Your task to perform on an android device: turn off javascript in the chrome app Image 0: 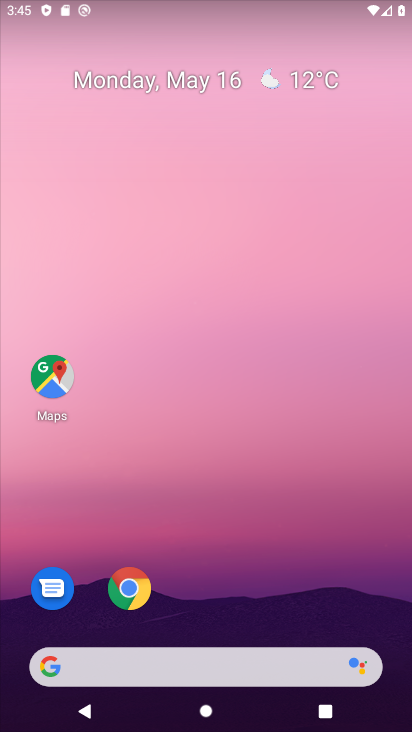
Step 0: click (124, 600)
Your task to perform on an android device: turn off javascript in the chrome app Image 1: 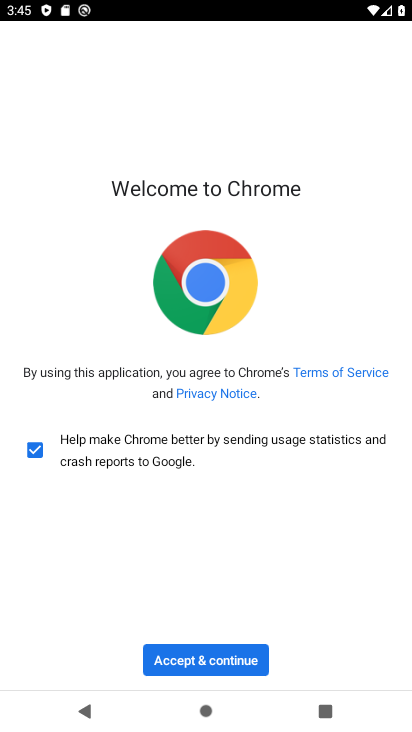
Step 1: click (190, 660)
Your task to perform on an android device: turn off javascript in the chrome app Image 2: 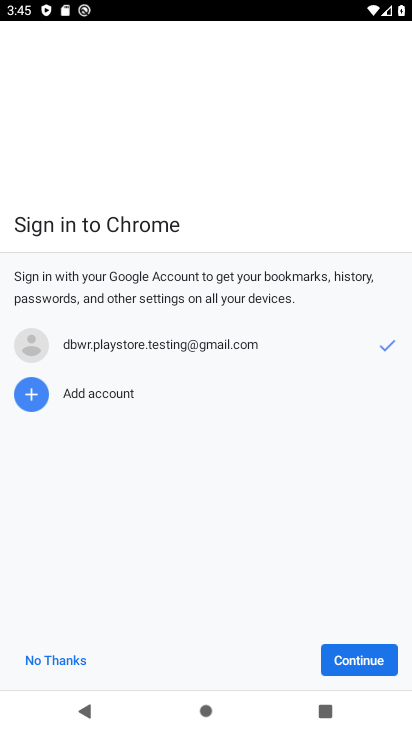
Step 2: click (368, 659)
Your task to perform on an android device: turn off javascript in the chrome app Image 3: 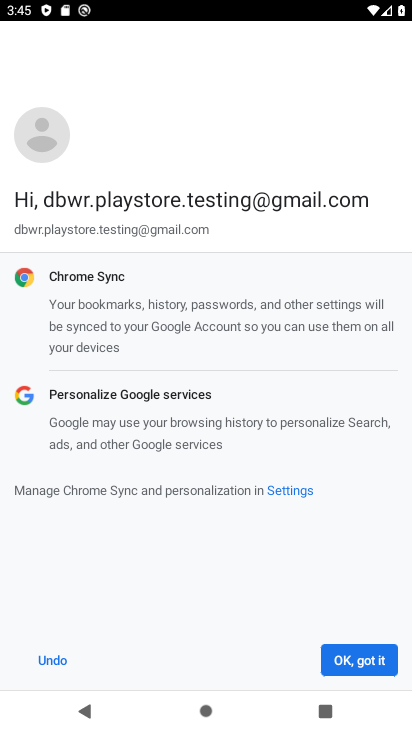
Step 3: click (368, 659)
Your task to perform on an android device: turn off javascript in the chrome app Image 4: 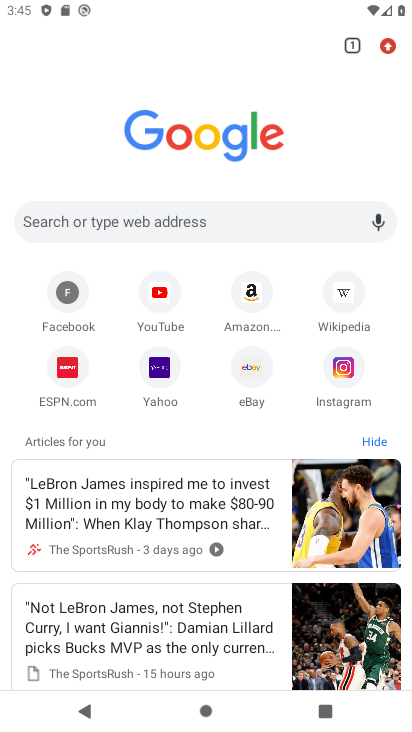
Step 4: click (386, 41)
Your task to perform on an android device: turn off javascript in the chrome app Image 5: 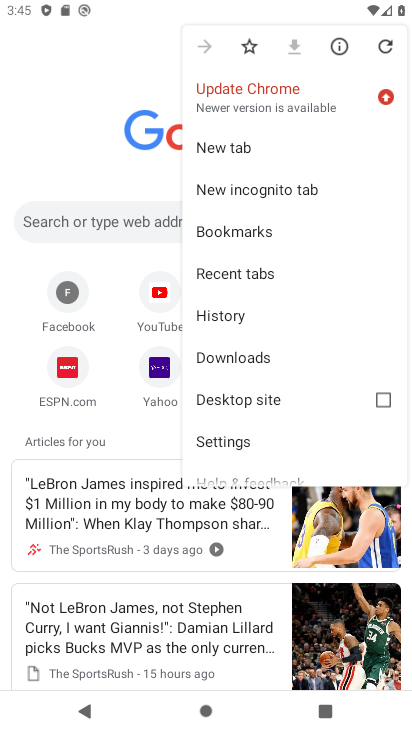
Step 5: drag from (243, 416) to (176, 20)
Your task to perform on an android device: turn off javascript in the chrome app Image 6: 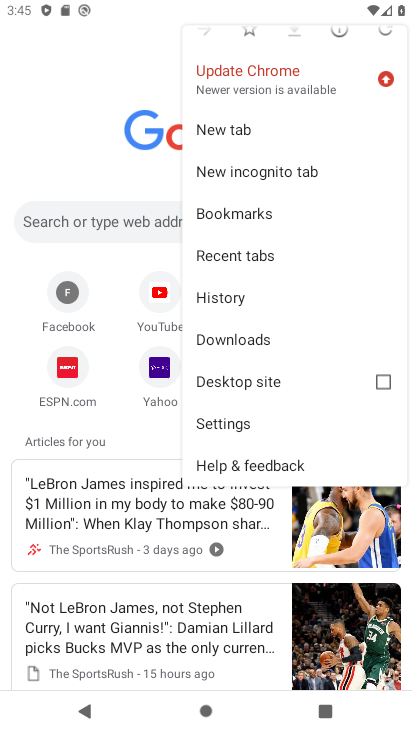
Step 6: click (222, 422)
Your task to perform on an android device: turn off javascript in the chrome app Image 7: 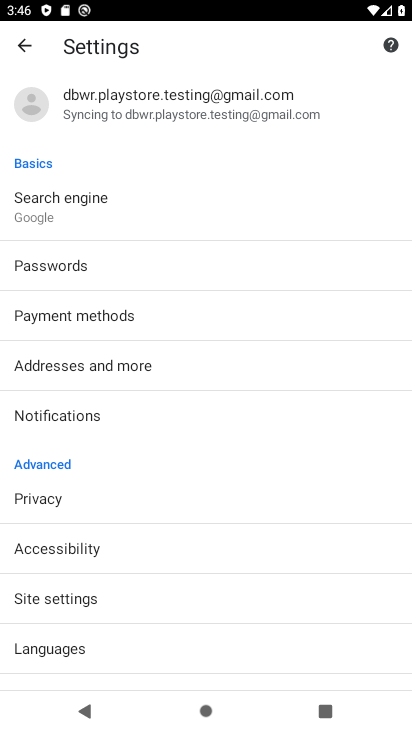
Step 7: drag from (187, 580) to (159, 284)
Your task to perform on an android device: turn off javascript in the chrome app Image 8: 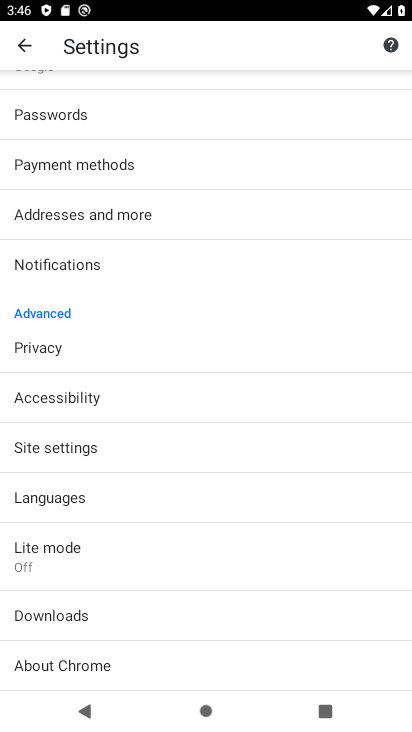
Step 8: click (152, 452)
Your task to perform on an android device: turn off javascript in the chrome app Image 9: 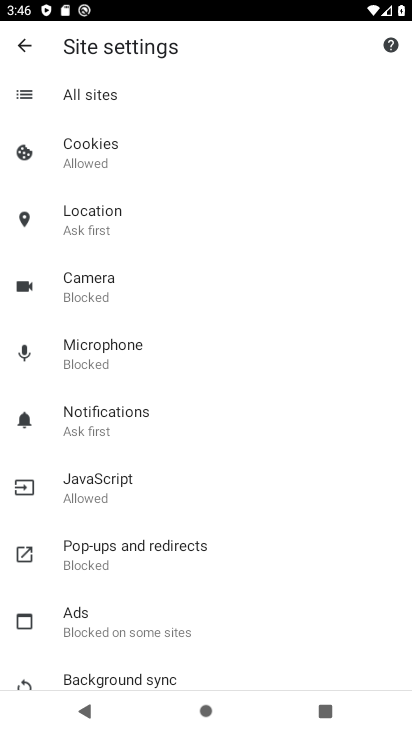
Step 9: drag from (250, 506) to (250, 116)
Your task to perform on an android device: turn off javascript in the chrome app Image 10: 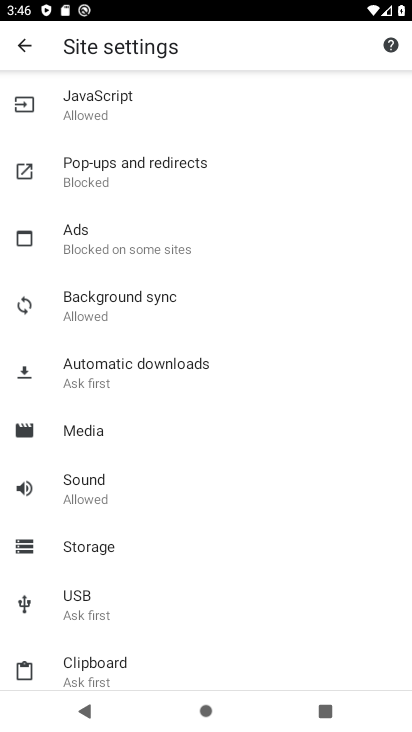
Step 10: click (129, 102)
Your task to perform on an android device: turn off javascript in the chrome app Image 11: 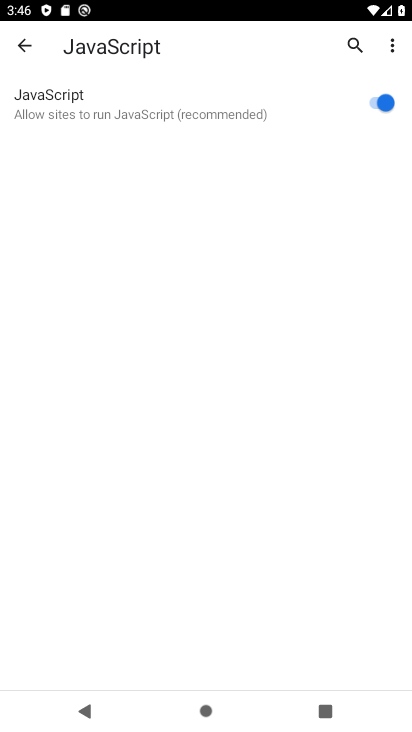
Step 11: click (393, 101)
Your task to perform on an android device: turn off javascript in the chrome app Image 12: 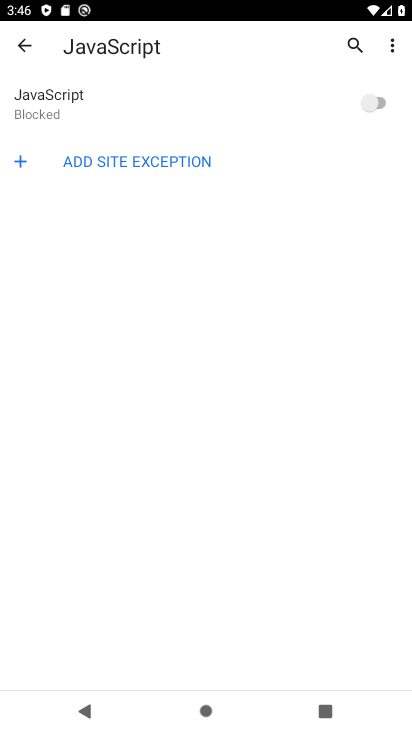
Step 12: task complete